Your task to perform on an android device: Open calendar and show me the first week of next month Image 0: 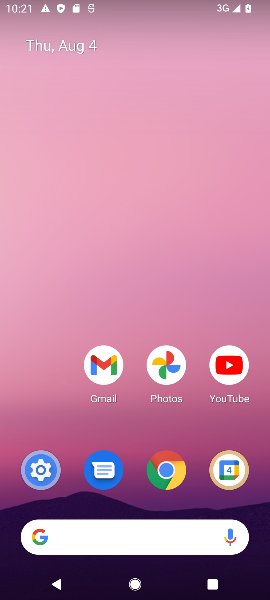
Step 0: click (229, 471)
Your task to perform on an android device: Open calendar and show me the first week of next month Image 1: 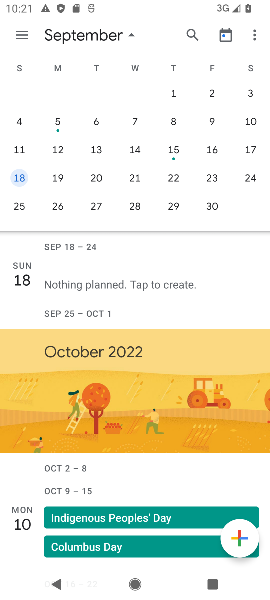
Step 1: click (169, 91)
Your task to perform on an android device: Open calendar and show me the first week of next month Image 2: 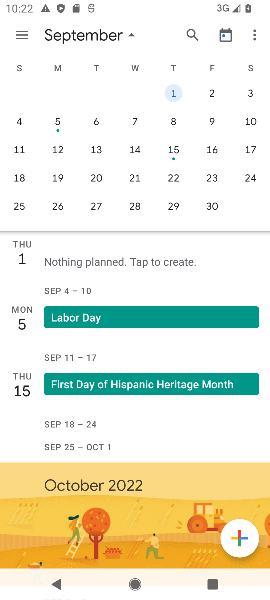
Step 2: task complete